Your task to perform on an android device: change text size in settings app Image 0: 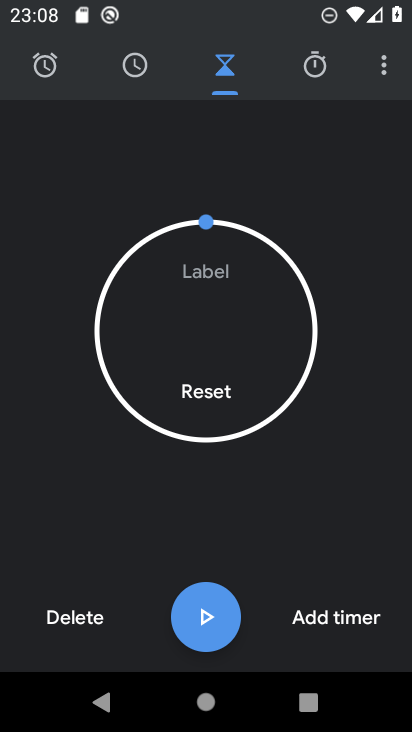
Step 0: press home button
Your task to perform on an android device: change text size in settings app Image 1: 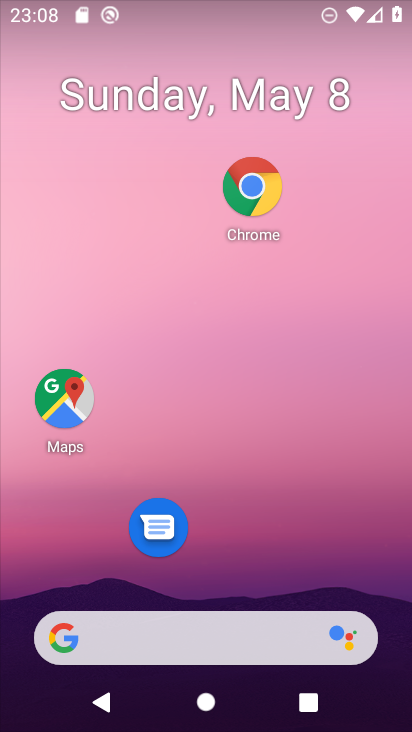
Step 1: drag from (312, 523) to (348, 205)
Your task to perform on an android device: change text size in settings app Image 2: 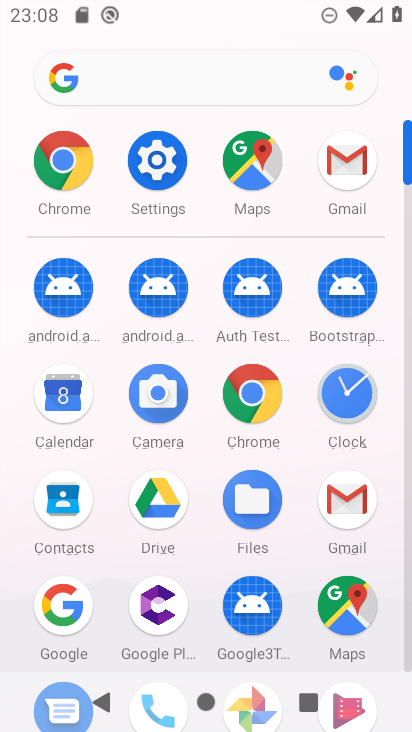
Step 2: click (154, 156)
Your task to perform on an android device: change text size in settings app Image 3: 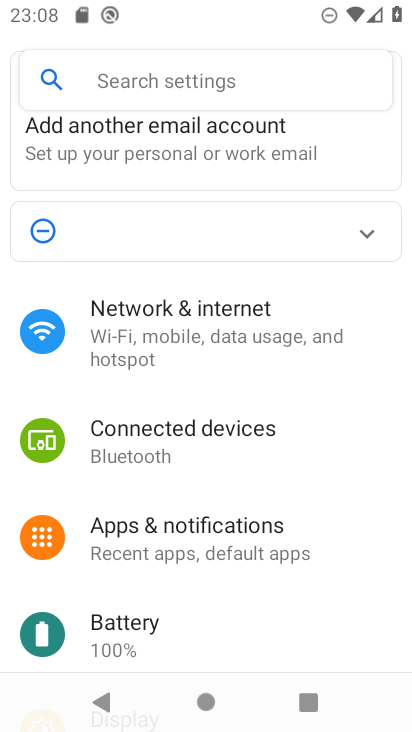
Step 3: drag from (205, 628) to (260, 291)
Your task to perform on an android device: change text size in settings app Image 4: 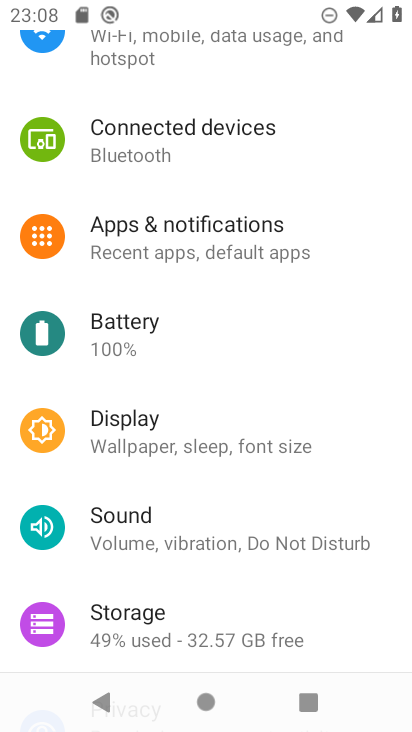
Step 4: drag from (227, 645) to (288, 260)
Your task to perform on an android device: change text size in settings app Image 5: 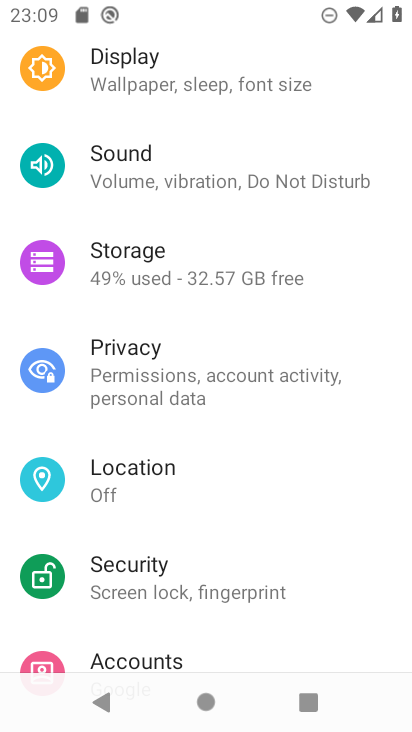
Step 5: drag from (216, 591) to (260, 266)
Your task to perform on an android device: change text size in settings app Image 6: 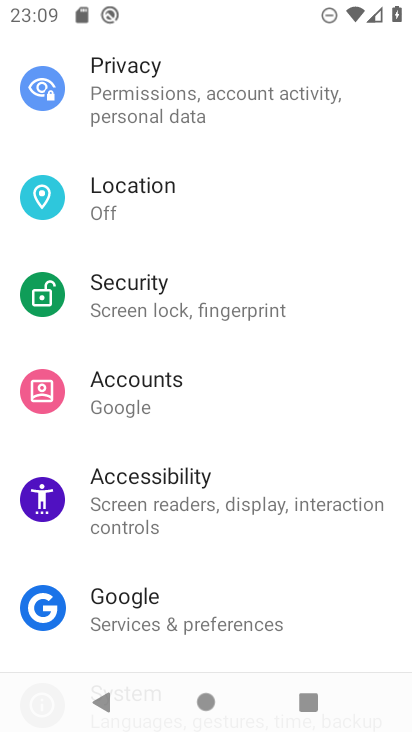
Step 6: drag from (202, 618) to (251, 363)
Your task to perform on an android device: change text size in settings app Image 7: 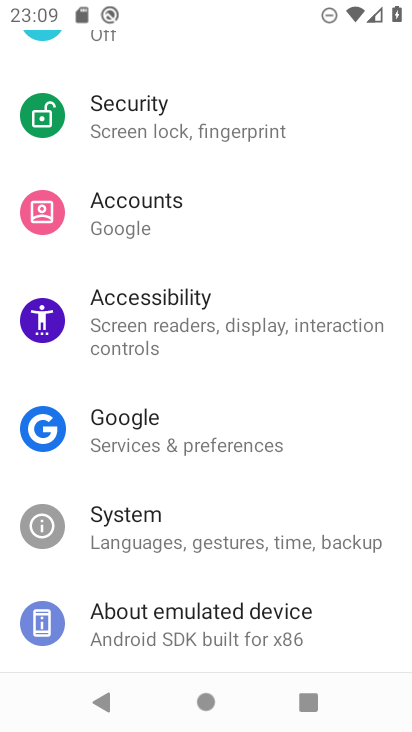
Step 7: drag from (287, 200) to (253, 449)
Your task to perform on an android device: change text size in settings app Image 8: 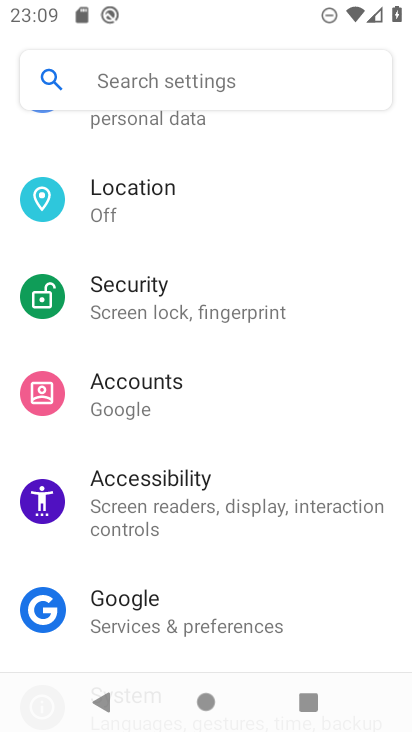
Step 8: click (146, 510)
Your task to perform on an android device: change text size in settings app Image 9: 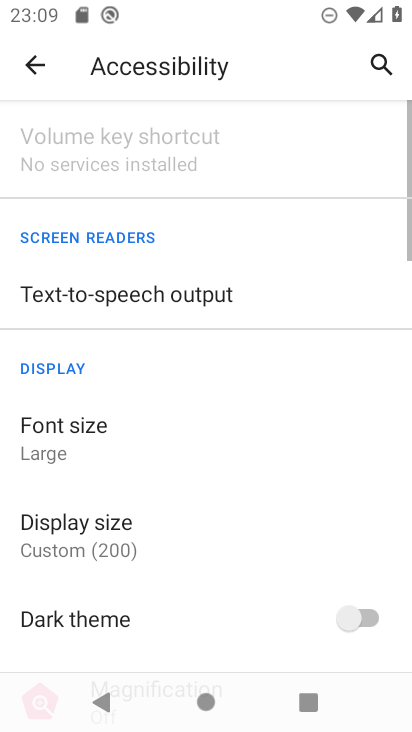
Step 9: click (103, 431)
Your task to perform on an android device: change text size in settings app Image 10: 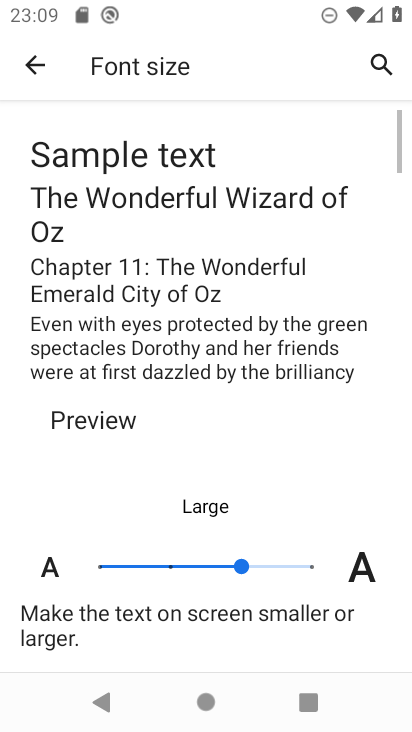
Step 10: click (174, 571)
Your task to perform on an android device: change text size in settings app Image 11: 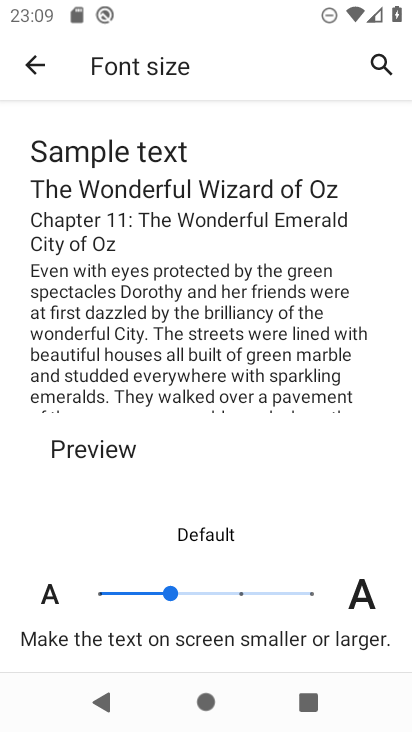
Step 11: task complete